Your task to perform on an android device: turn off location history Image 0: 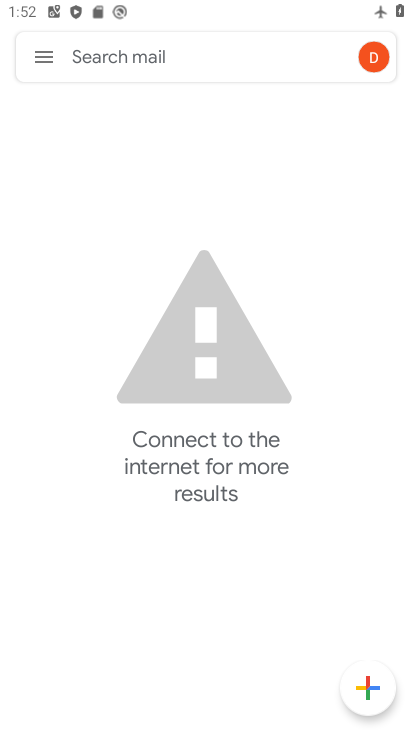
Step 0: press home button
Your task to perform on an android device: turn off location history Image 1: 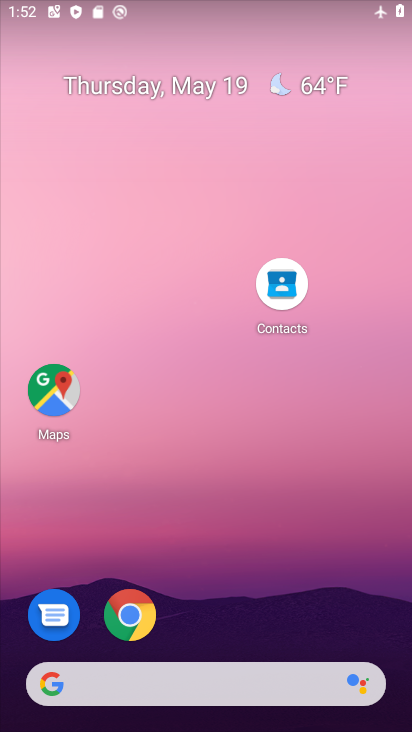
Step 1: drag from (198, 576) to (196, 160)
Your task to perform on an android device: turn off location history Image 2: 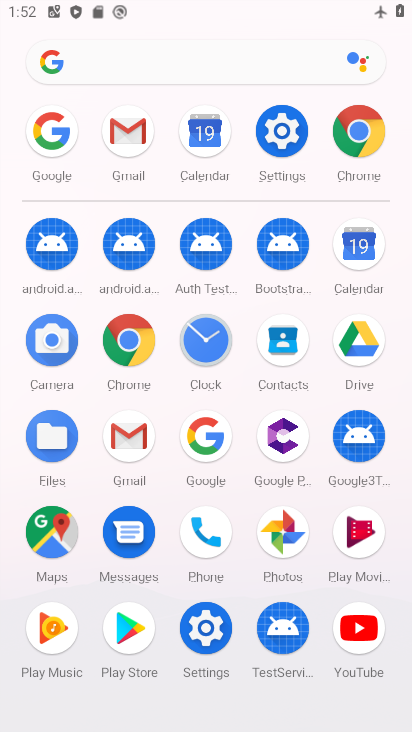
Step 2: click (288, 149)
Your task to perform on an android device: turn off location history Image 3: 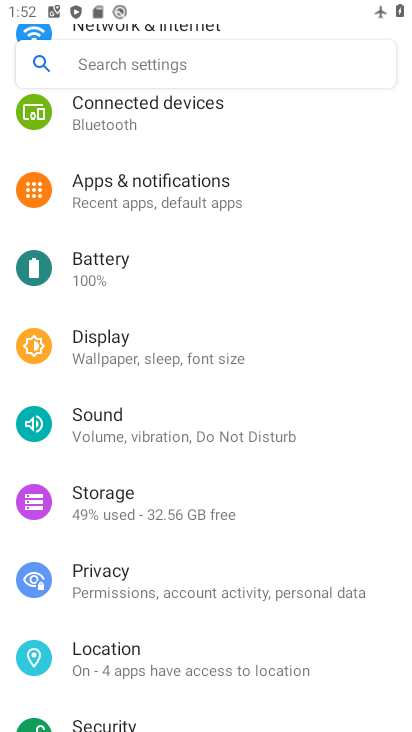
Step 3: click (187, 657)
Your task to perform on an android device: turn off location history Image 4: 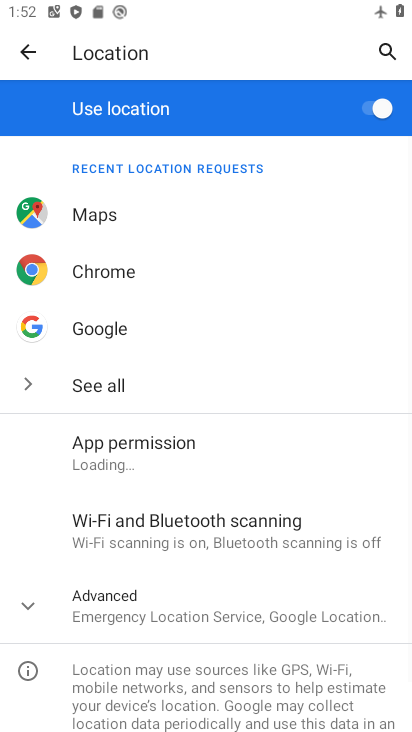
Step 4: click (182, 603)
Your task to perform on an android device: turn off location history Image 5: 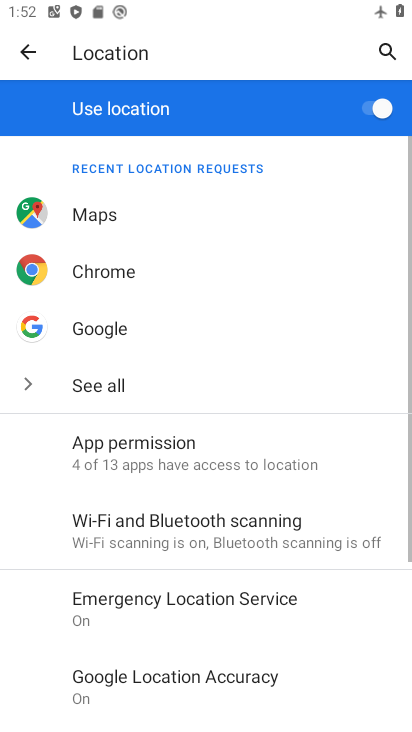
Step 5: drag from (201, 535) to (199, 217)
Your task to perform on an android device: turn off location history Image 6: 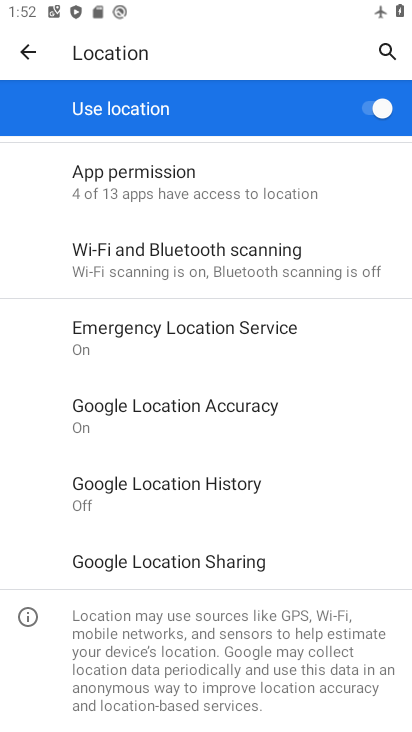
Step 6: click (170, 470)
Your task to perform on an android device: turn off location history Image 7: 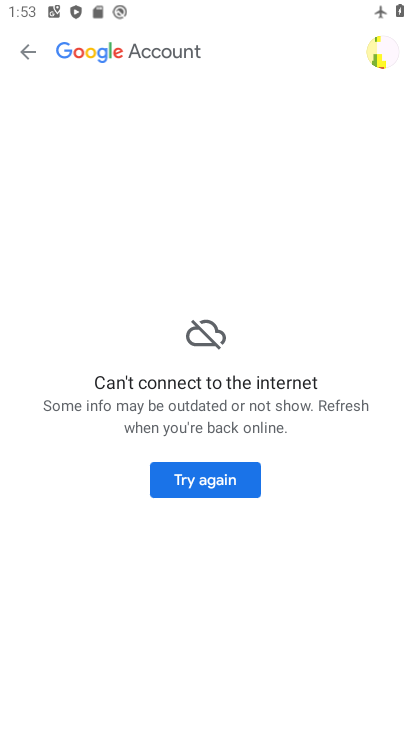
Step 7: click (387, 61)
Your task to perform on an android device: turn off location history Image 8: 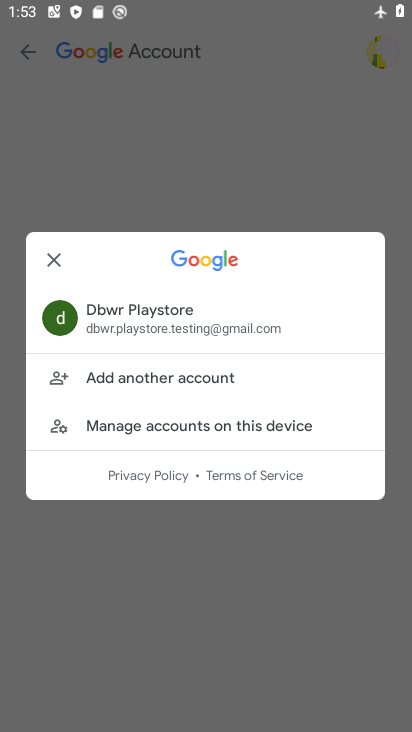
Step 8: click (308, 136)
Your task to perform on an android device: turn off location history Image 9: 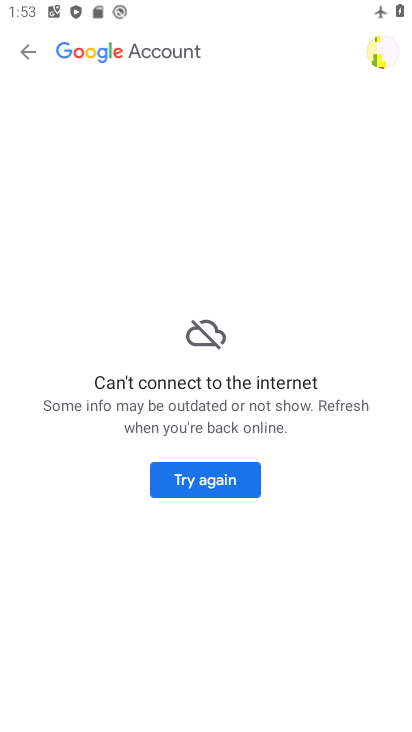
Step 9: task complete